Your task to perform on an android device: open device folders in google photos Image 0: 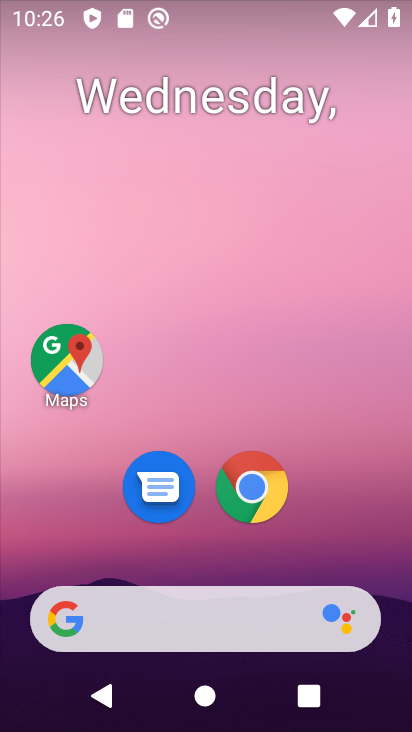
Step 0: drag from (238, 646) to (216, 173)
Your task to perform on an android device: open device folders in google photos Image 1: 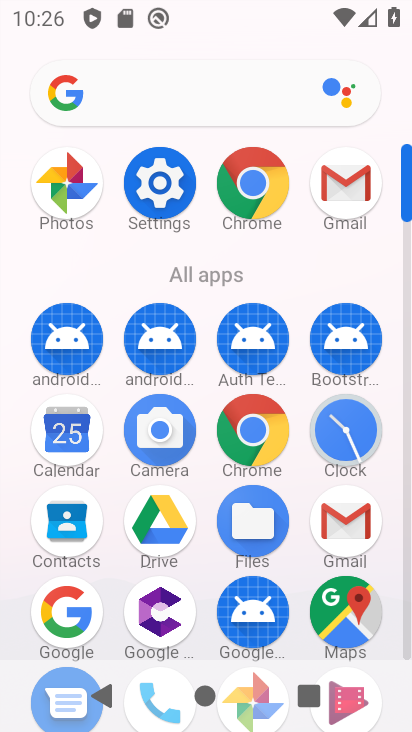
Step 1: drag from (277, 620) to (272, 367)
Your task to perform on an android device: open device folders in google photos Image 2: 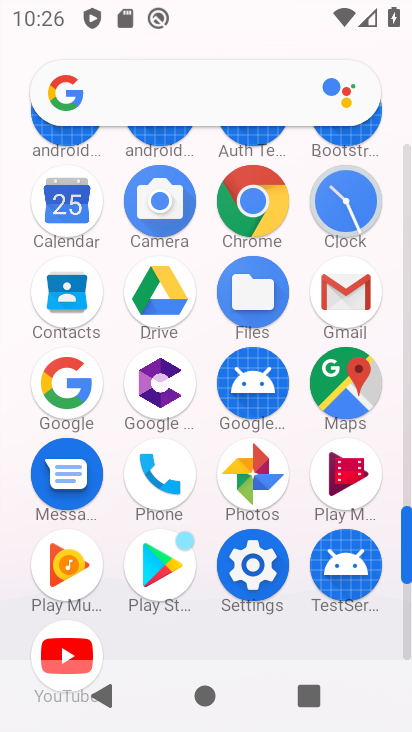
Step 2: click (263, 481)
Your task to perform on an android device: open device folders in google photos Image 3: 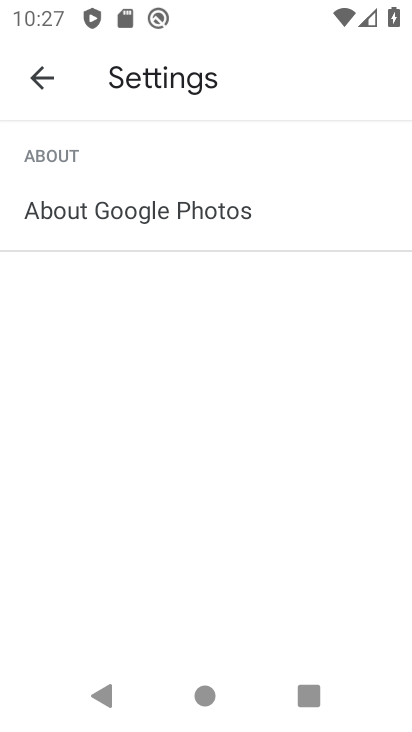
Step 3: press back button
Your task to perform on an android device: open device folders in google photos Image 4: 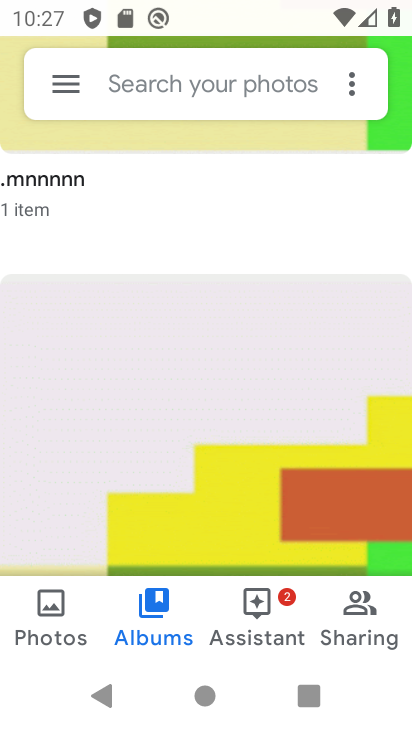
Step 4: click (72, 84)
Your task to perform on an android device: open device folders in google photos Image 5: 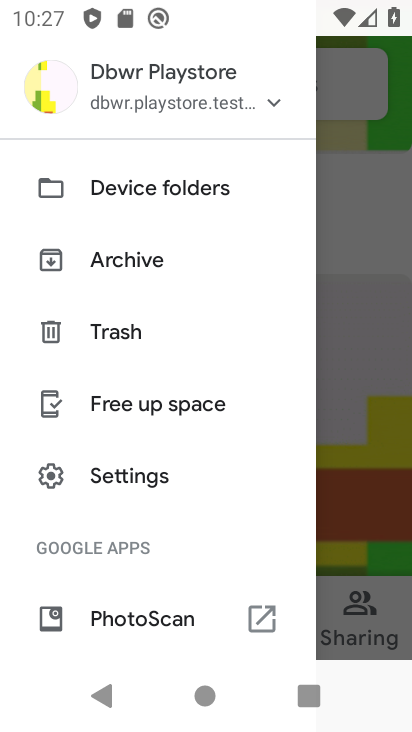
Step 5: click (118, 185)
Your task to perform on an android device: open device folders in google photos Image 6: 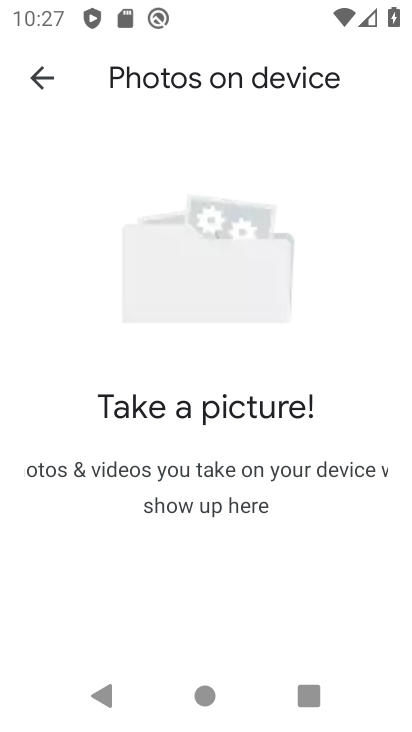
Step 6: task complete